Your task to perform on an android device: add a contact Image 0: 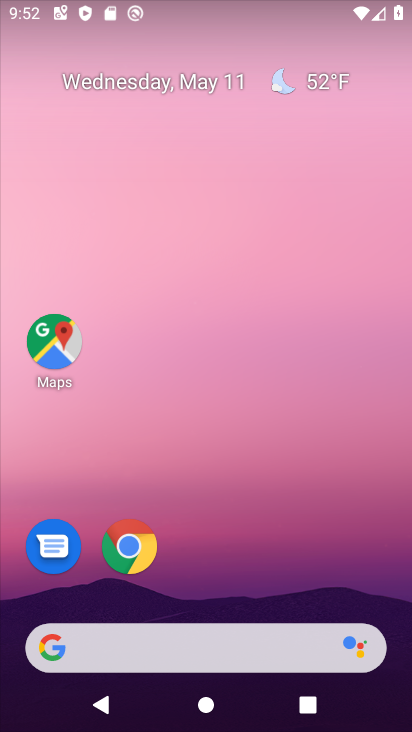
Step 0: drag from (183, 616) to (279, 61)
Your task to perform on an android device: add a contact Image 1: 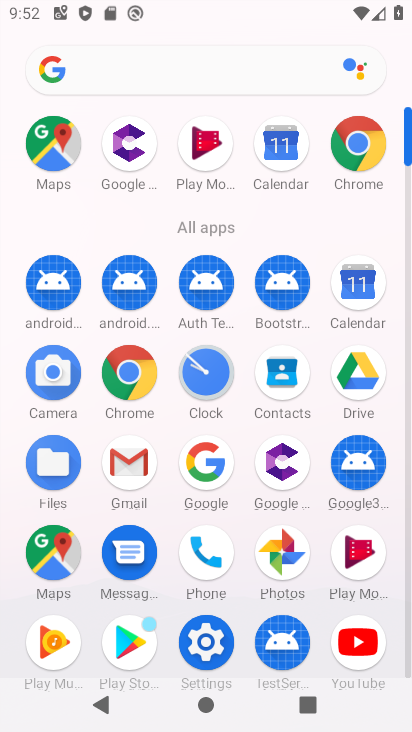
Step 1: drag from (214, 706) to (283, 367)
Your task to perform on an android device: add a contact Image 2: 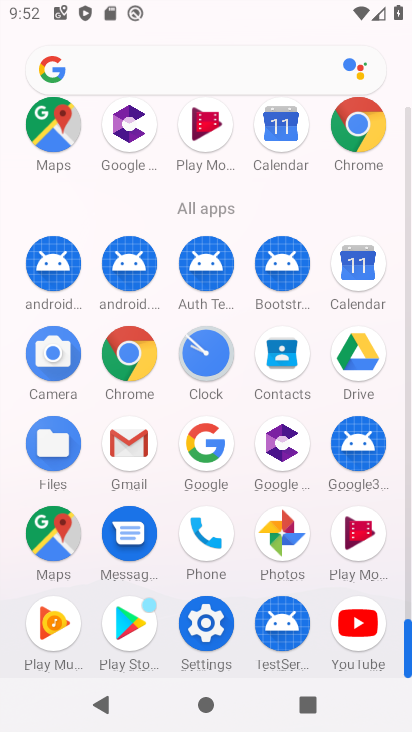
Step 2: click (279, 369)
Your task to perform on an android device: add a contact Image 3: 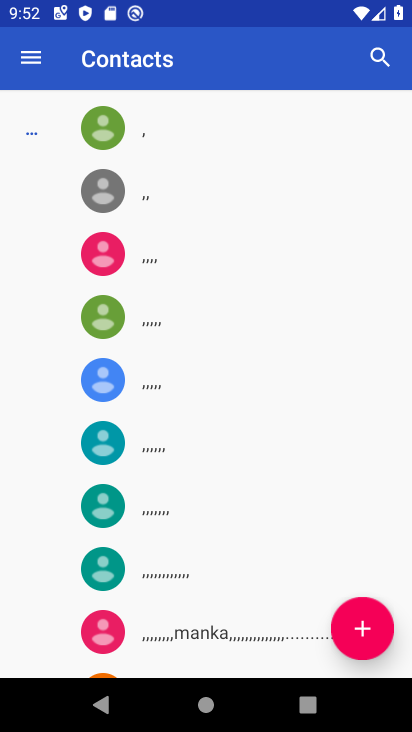
Step 3: click (375, 624)
Your task to perform on an android device: add a contact Image 4: 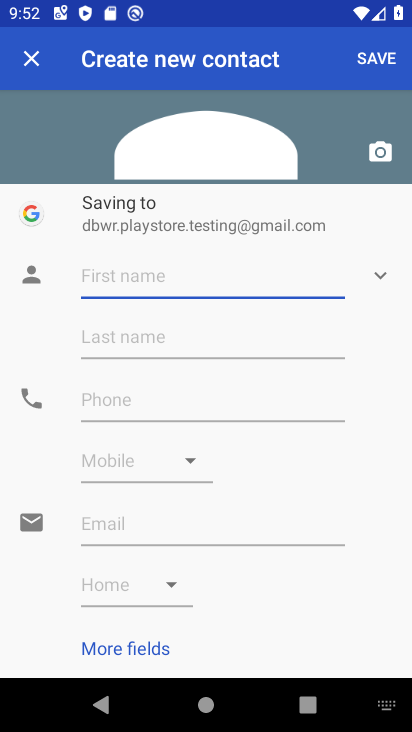
Step 4: type "timmmy "
Your task to perform on an android device: add a contact Image 5: 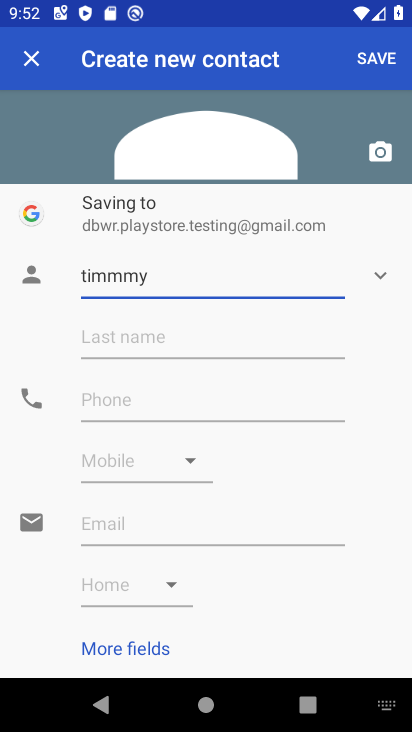
Step 5: click (122, 392)
Your task to perform on an android device: add a contact Image 6: 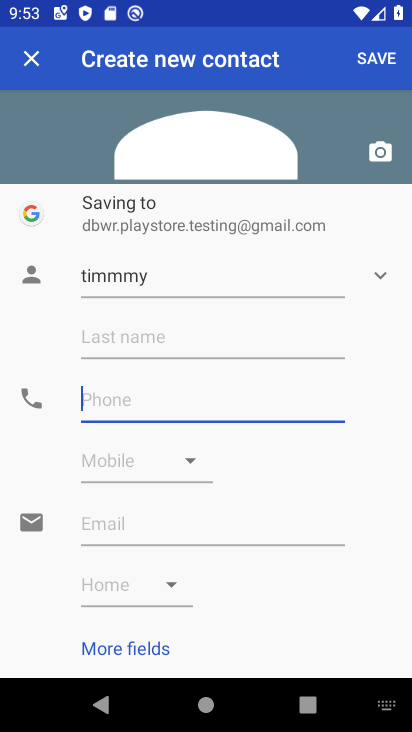
Step 6: type "27887654312"
Your task to perform on an android device: add a contact Image 7: 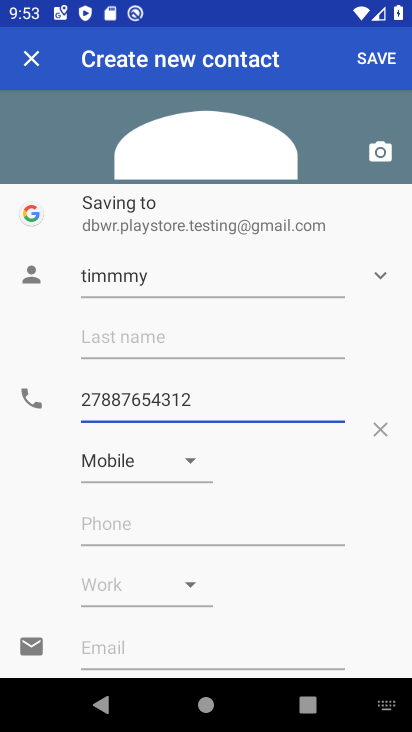
Step 7: click (379, 50)
Your task to perform on an android device: add a contact Image 8: 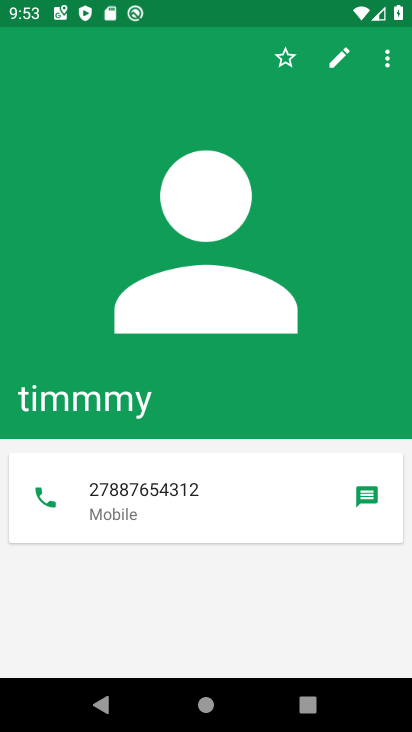
Step 8: task complete